Your task to perform on an android device: Go to sound settings Image 0: 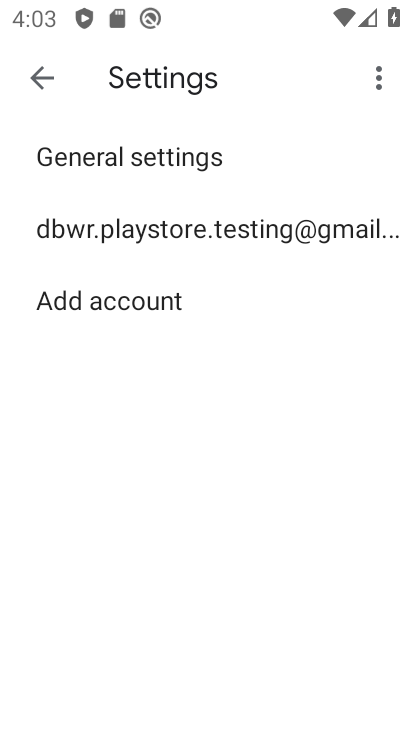
Step 0: press home button
Your task to perform on an android device: Go to sound settings Image 1: 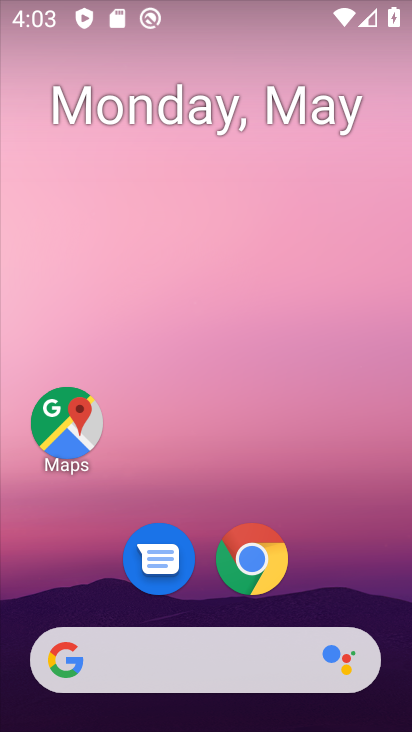
Step 1: drag from (162, 623) to (275, 7)
Your task to perform on an android device: Go to sound settings Image 2: 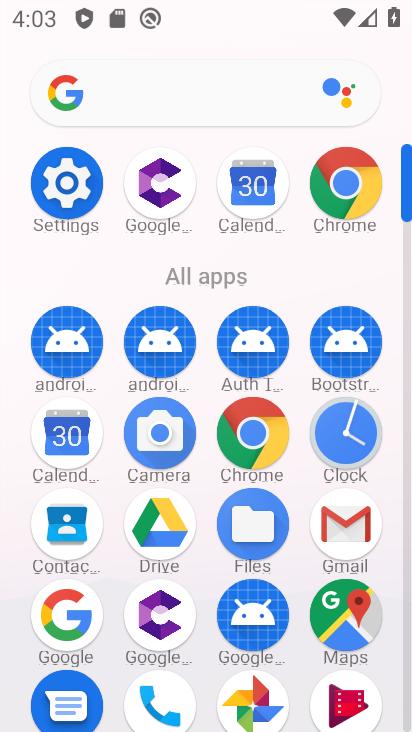
Step 2: click (52, 189)
Your task to perform on an android device: Go to sound settings Image 3: 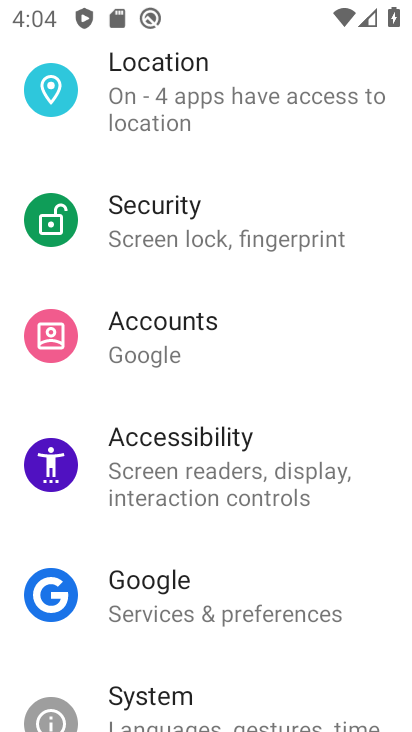
Step 3: drag from (182, 121) to (181, 731)
Your task to perform on an android device: Go to sound settings Image 4: 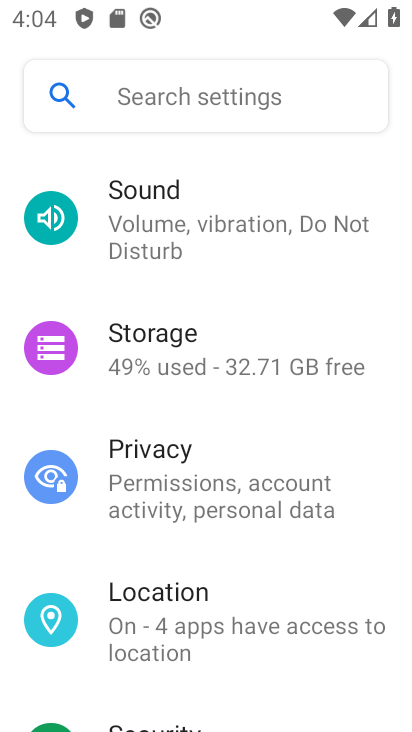
Step 4: drag from (264, 248) to (273, 538)
Your task to perform on an android device: Go to sound settings Image 5: 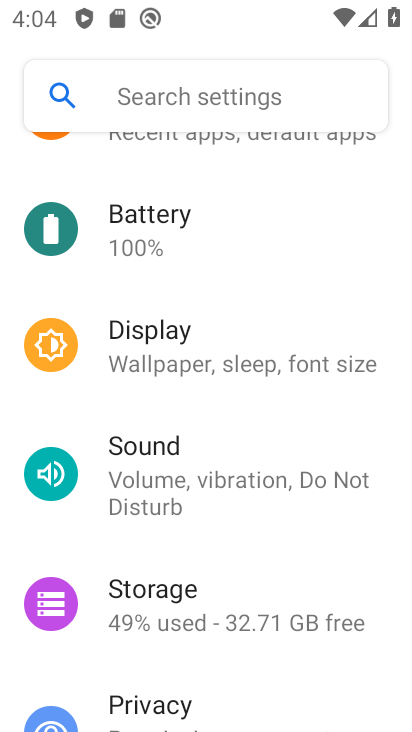
Step 5: click (333, 485)
Your task to perform on an android device: Go to sound settings Image 6: 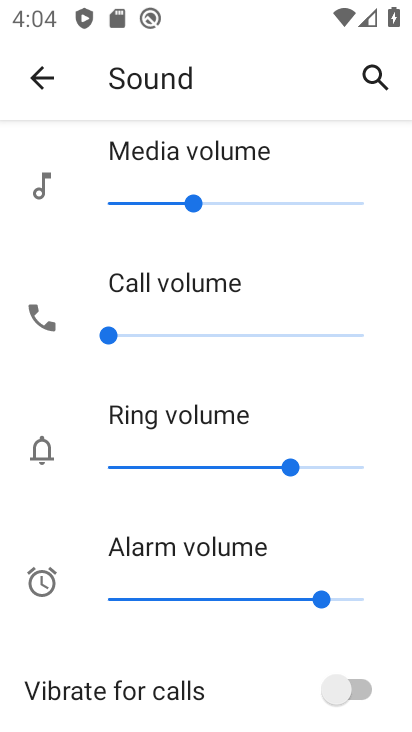
Step 6: task complete